Your task to perform on an android device: turn on improve location accuracy Image 0: 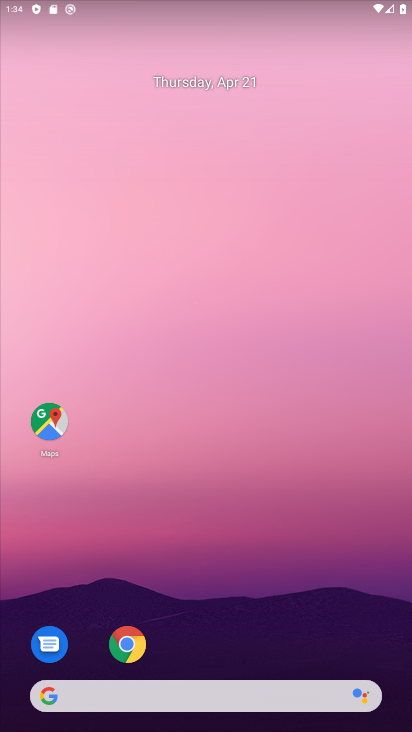
Step 0: drag from (292, 617) to (214, 0)
Your task to perform on an android device: turn on improve location accuracy Image 1: 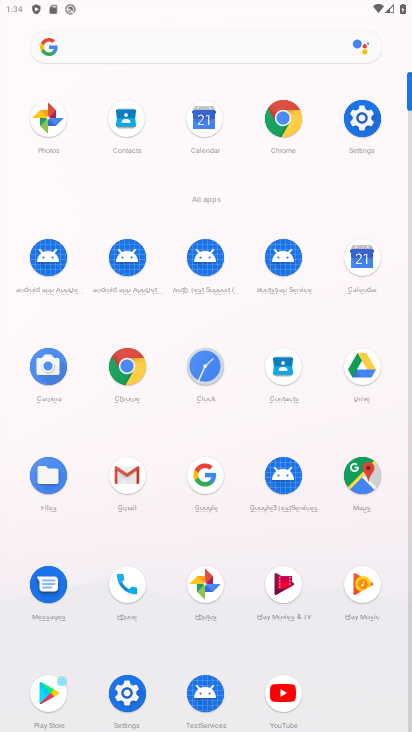
Step 1: click (357, 128)
Your task to perform on an android device: turn on improve location accuracy Image 2: 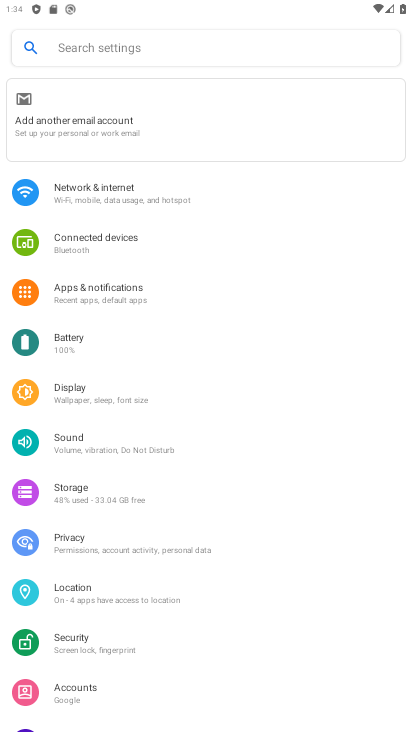
Step 2: click (240, 585)
Your task to perform on an android device: turn on improve location accuracy Image 3: 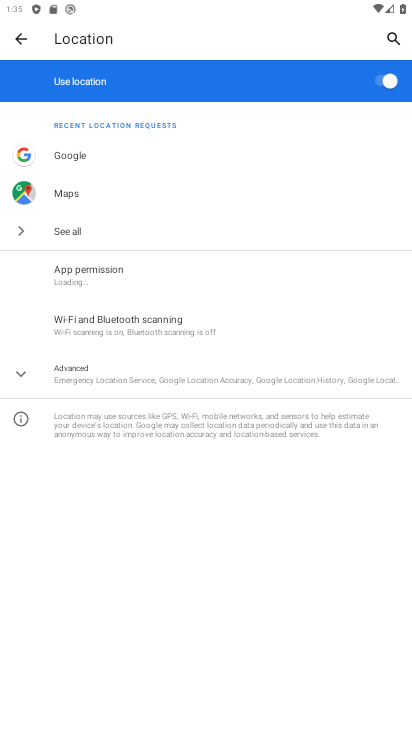
Step 3: click (241, 383)
Your task to perform on an android device: turn on improve location accuracy Image 4: 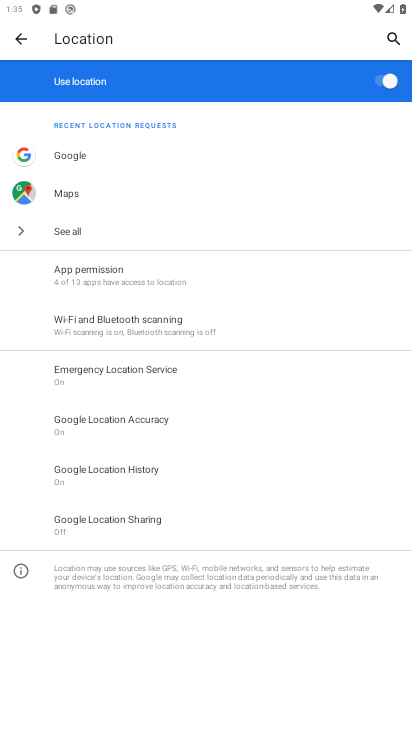
Step 4: click (238, 427)
Your task to perform on an android device: turn on improve location accuracy Image 5: 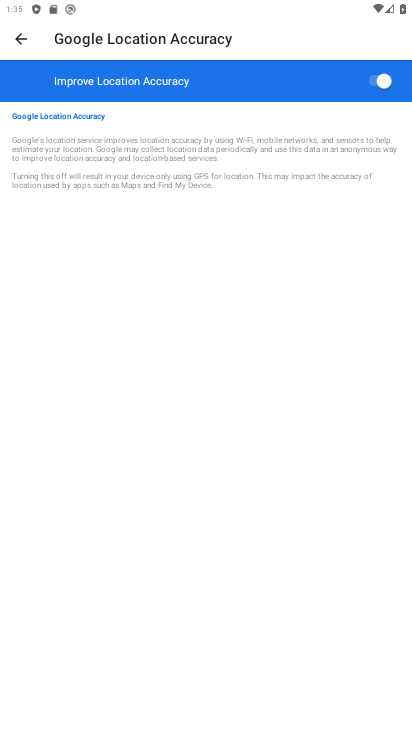
Step 5: task complete